Your task to perform on an android device: empty trash in the gmail app Image 0: 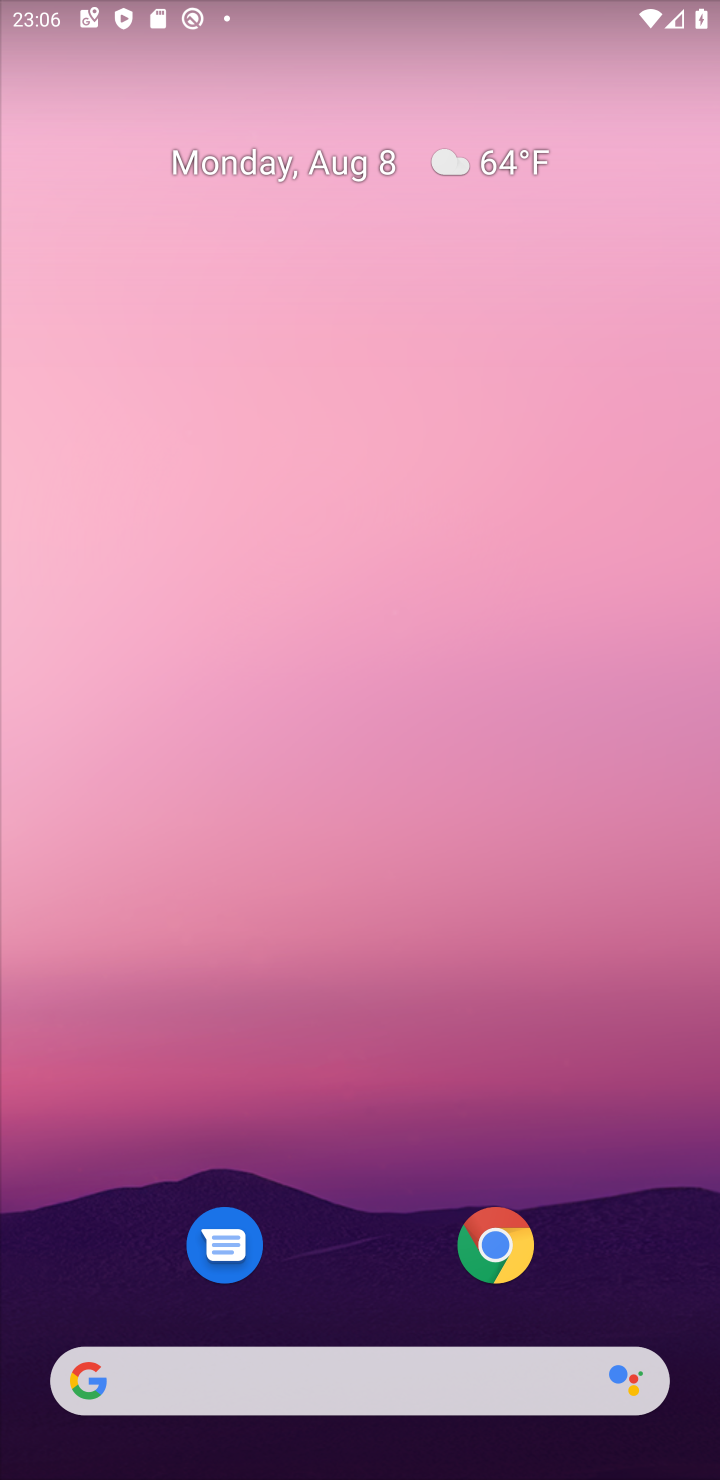
Step 0: drag from (355, 785) to (374, 164)
Your task to perform on an android device: empty trash in the gmail app Image 1: 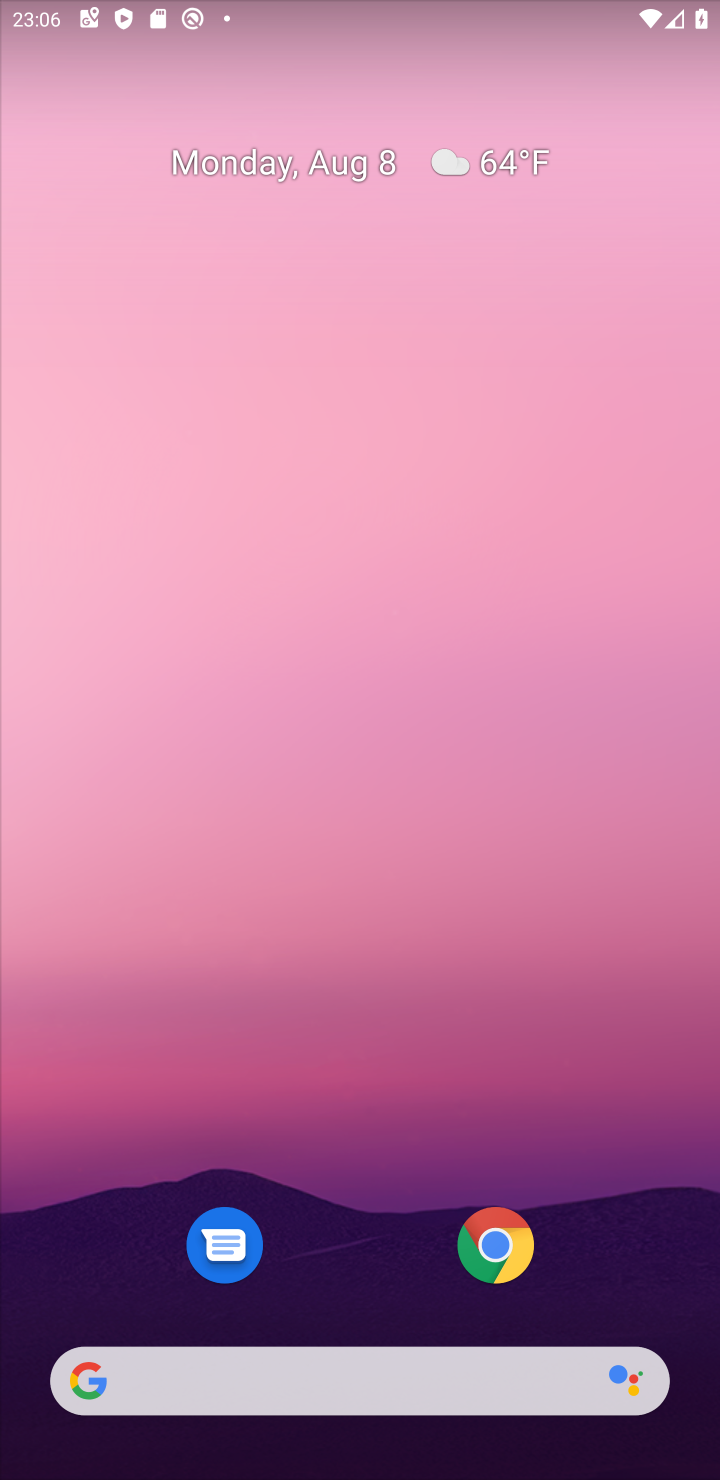
Step 1: drag from (365, 1244) to (297, 408)
Your task to perform on an android device: empty trash in the gmail app Image 2: 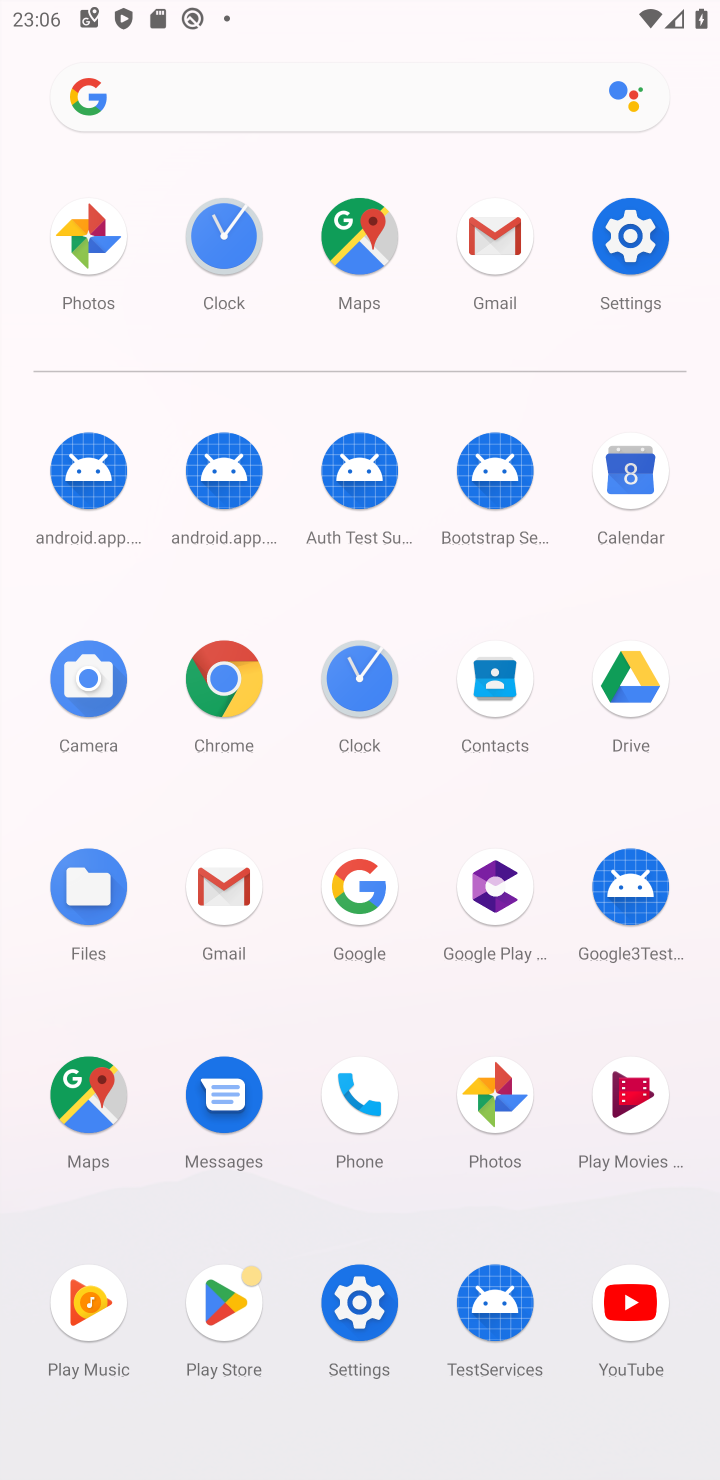
Step 2: click (484, 226)
Your task to perform on an android device: empty trash in the gmail app Image 3: 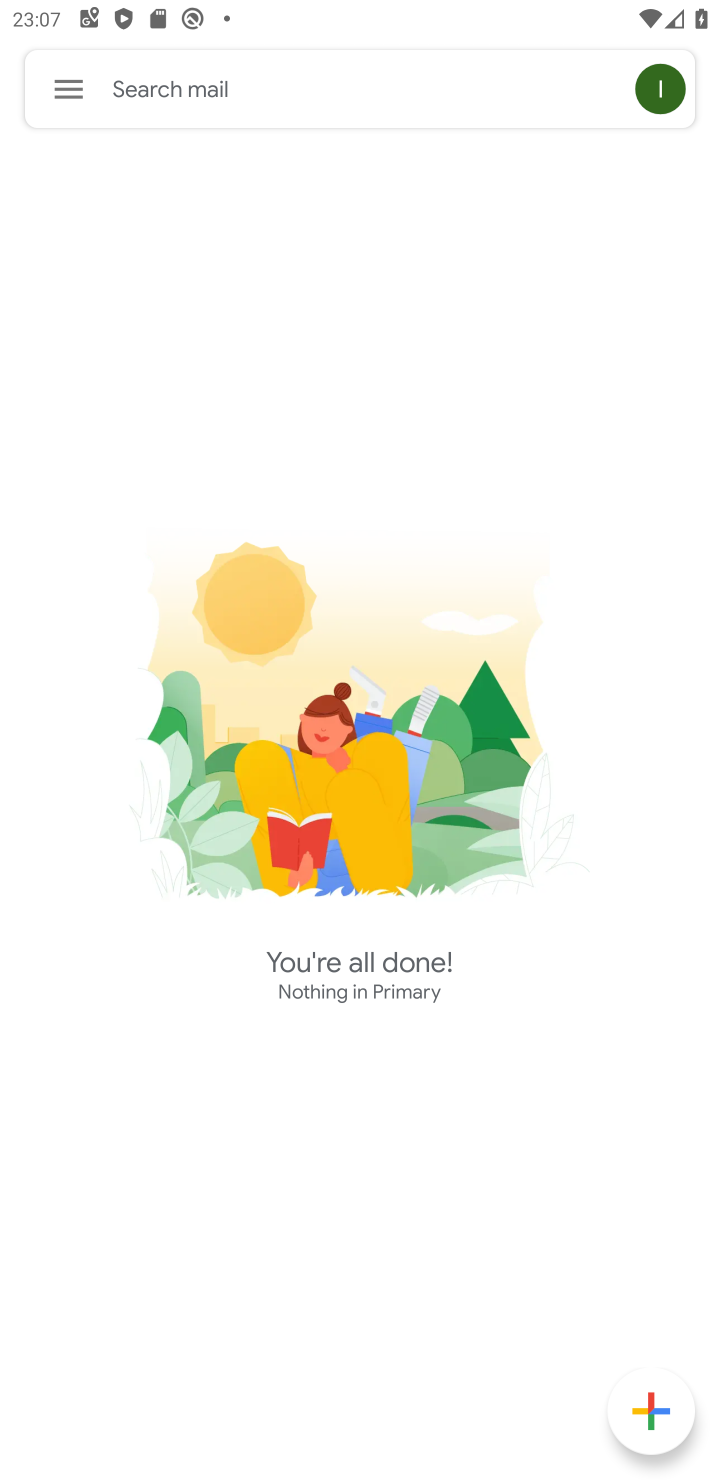
Step 3: click (64, 73)
Your task to perform on an android device: empty trash in the gmail app Image 4: 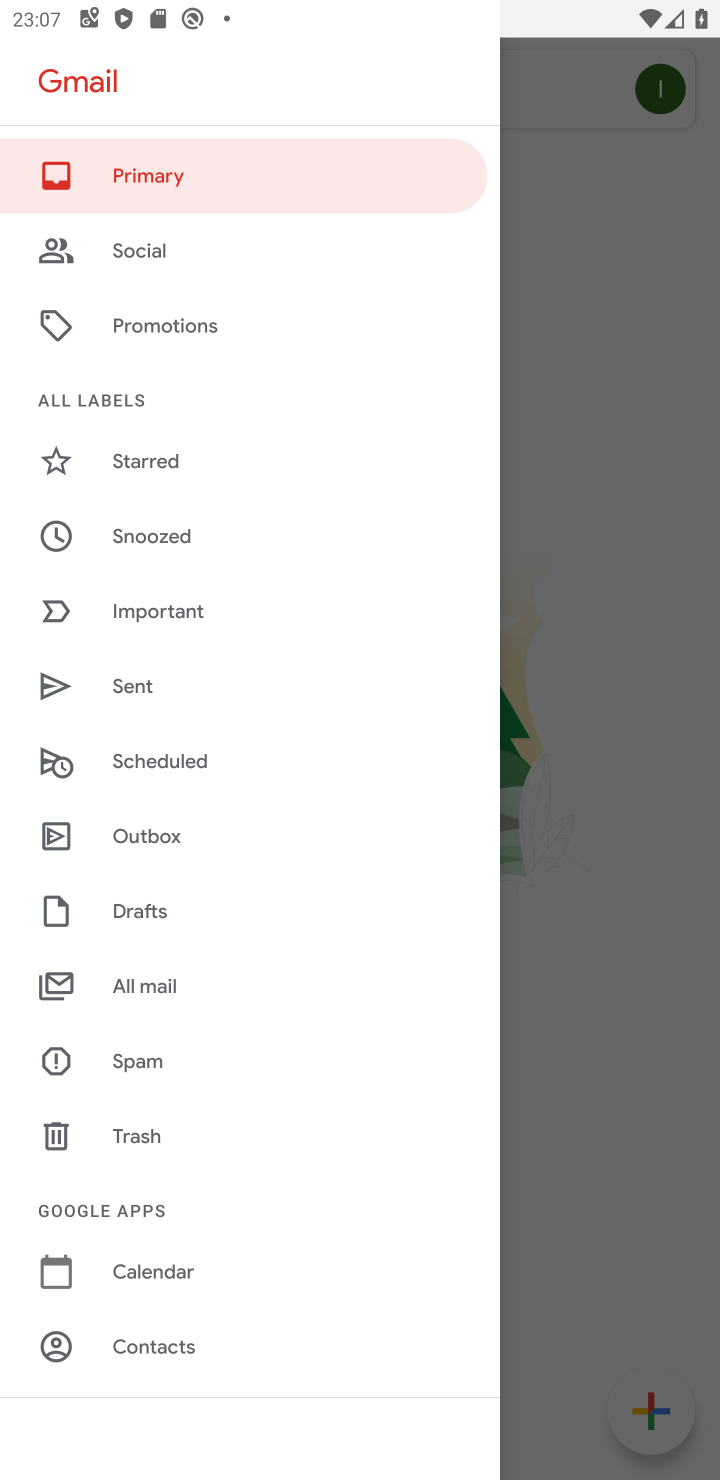
Step 4: drag from (248, 1111) to (318, 341)
Your task to perform on an android device: empty trash in the gmail app Image 5: 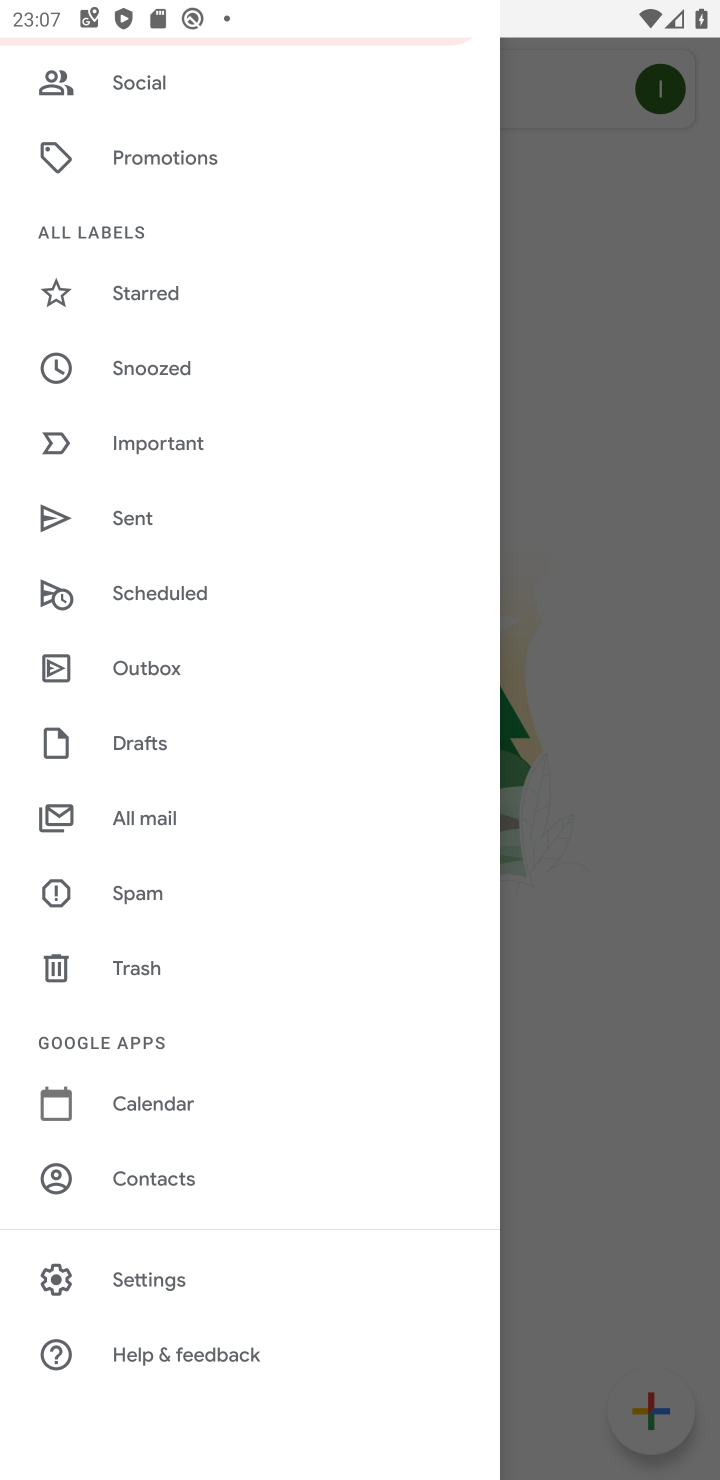
Step 5: click (127, 957)
Your task to perform on an android device: empty trash in the gmail app Image 6: 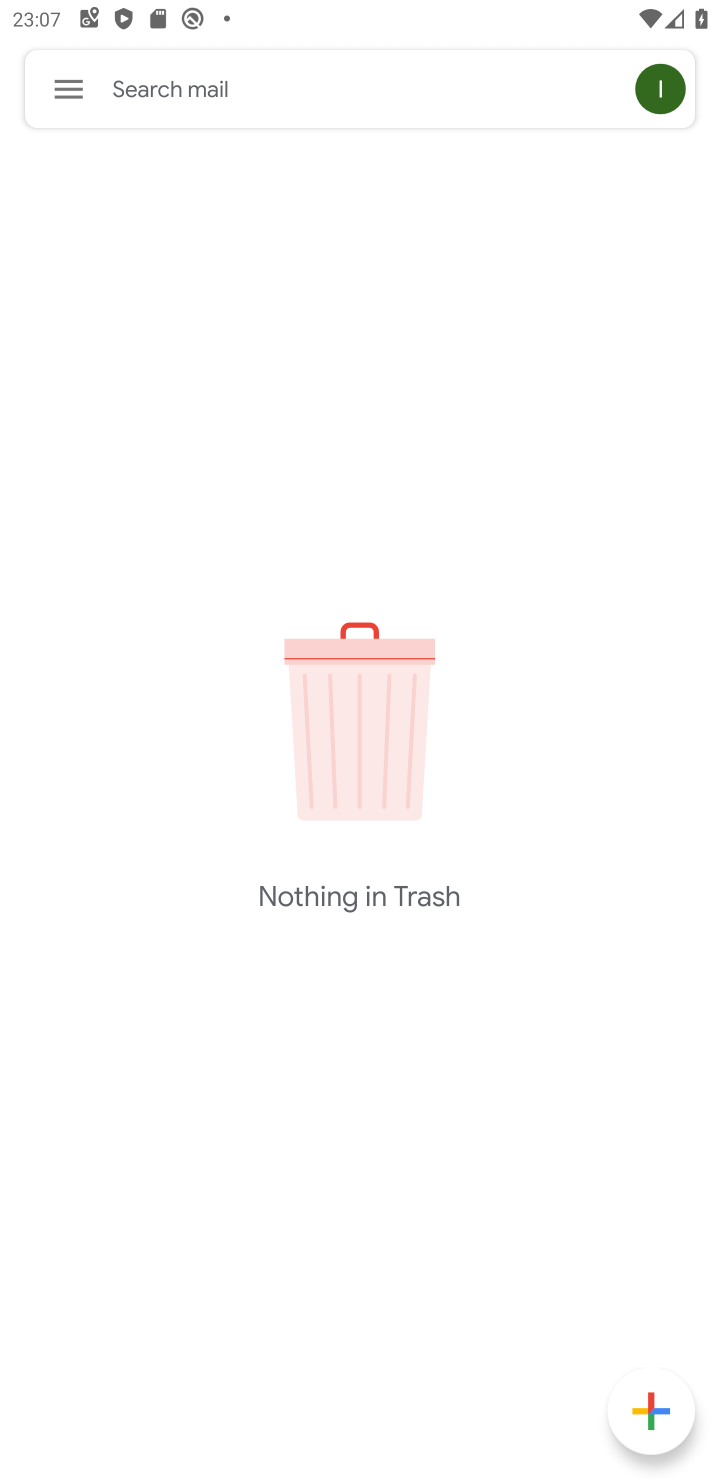
Step 6: task complete